Your task to perform on an android device: Go to Google Image 0: 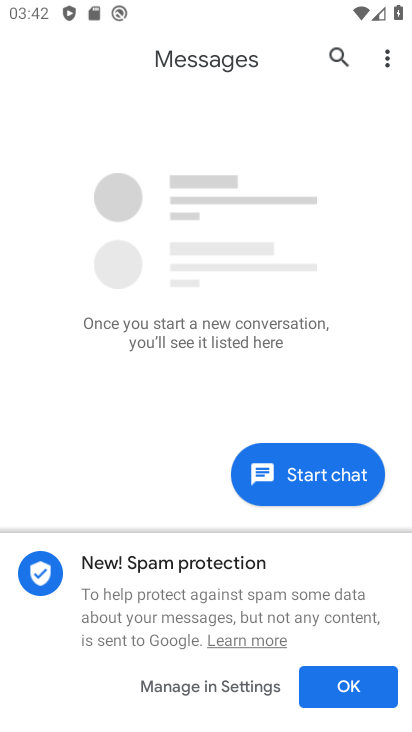
Step 0: press home button
Your task to perform on an android device: Go to Google Image 1: 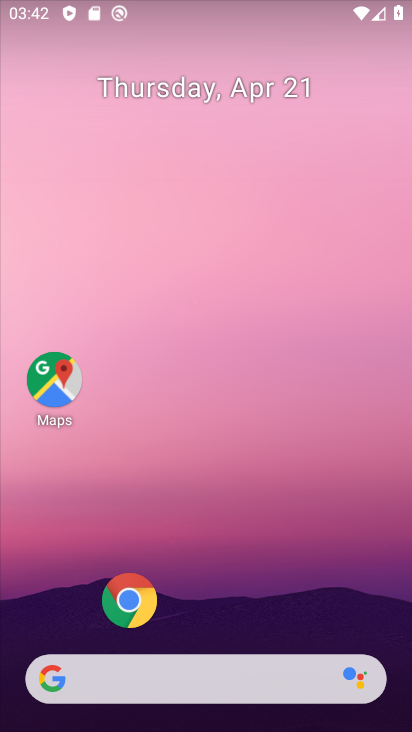
Step 1: drag from (236, 601) to (239, 125)
Your task to perform on an android device: Go to Google Image 2: 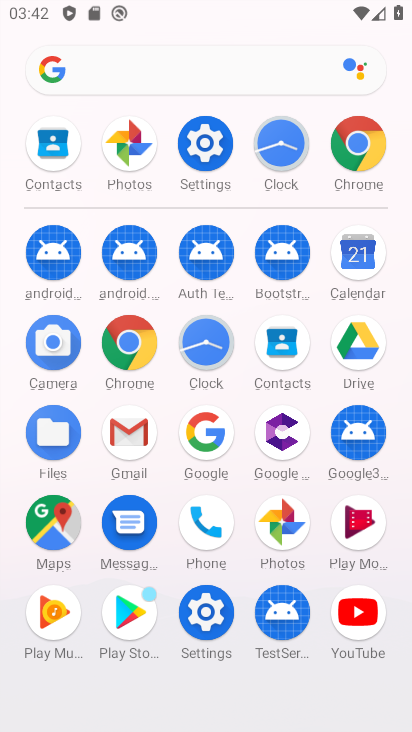
Step 2: click (208, 445)
Your task to perform on an android device: Go to Google Image 3: 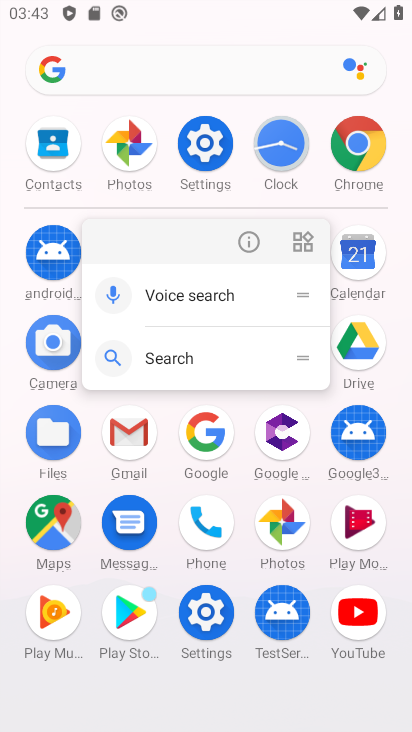
Step 3: click (244, 243)
Your task to perform on an android device: Go to Google Image 4: 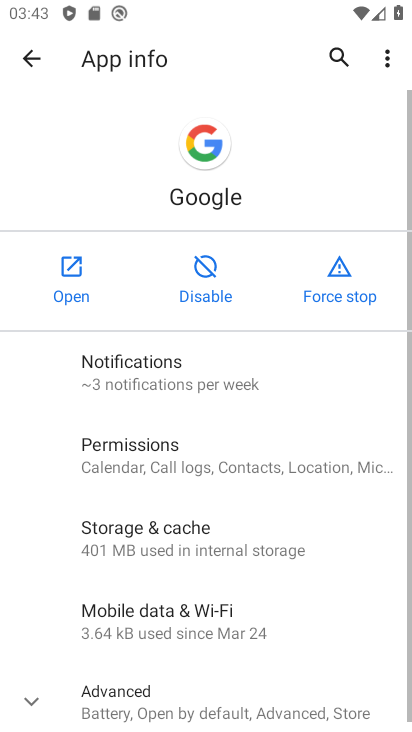
Step 4: click (90, 291)
Your task to perform on an android device: Go to Google Image 5: 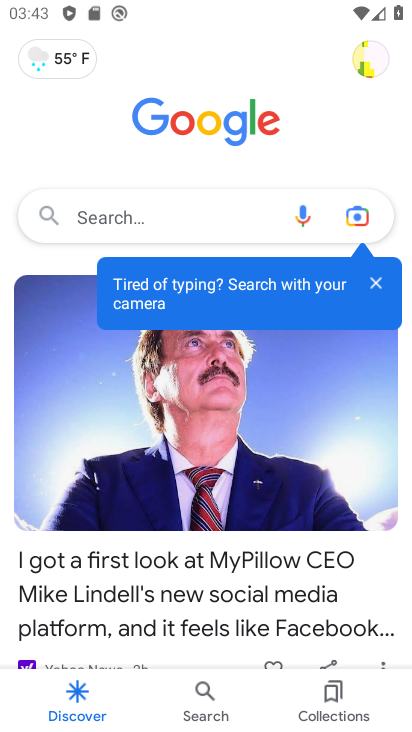
Step 5: task complete